Your task to perform on an android device: Search for vegetarian restaurants on Maps Image 0: 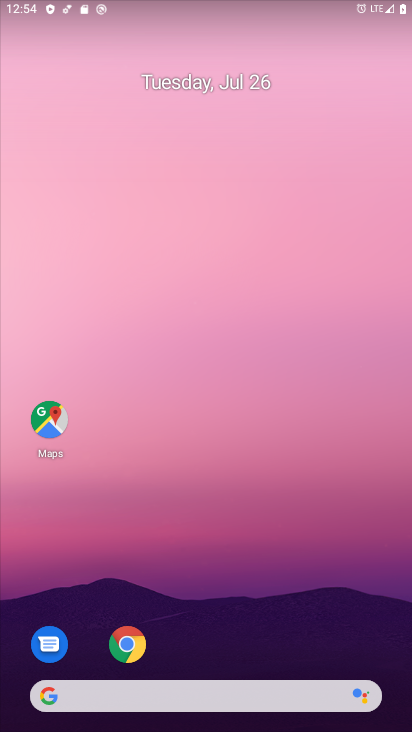
Step 0: click (56, 424)
Your task to perform on an android device: Search for vegetarian restaurants on Maps Image 1: 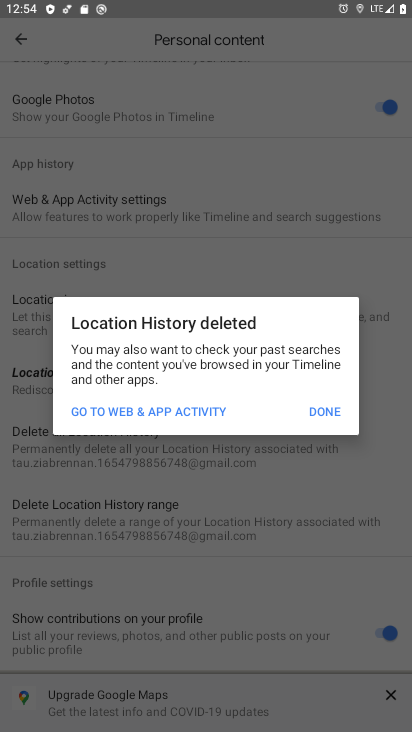
Step 1: click (321, 410)
Your task to perform on an android device: Search for vegetarian restaurants on Maps Image 2: 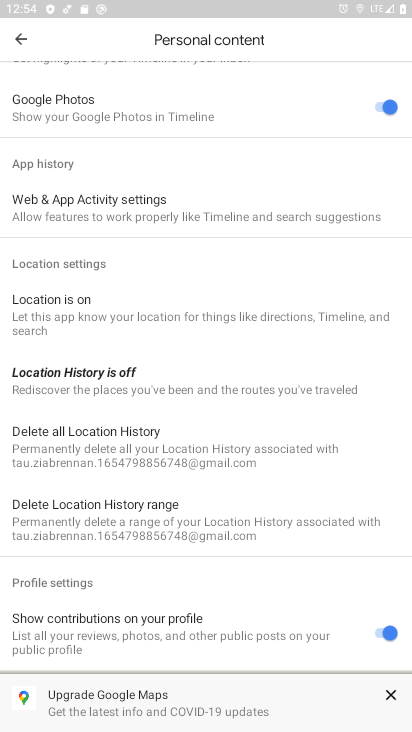
Step 2: click (19, 37)
Your task to perform on an android device: Search for vegetarian restaurants on Maps Image 3: 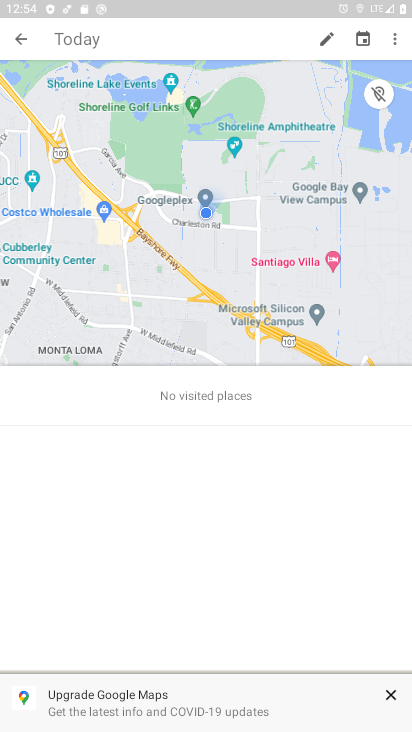
Step 3: click (21, 43)
Your task to perform on an android device: Search for vegetarian restaurants on Maps Image 4: 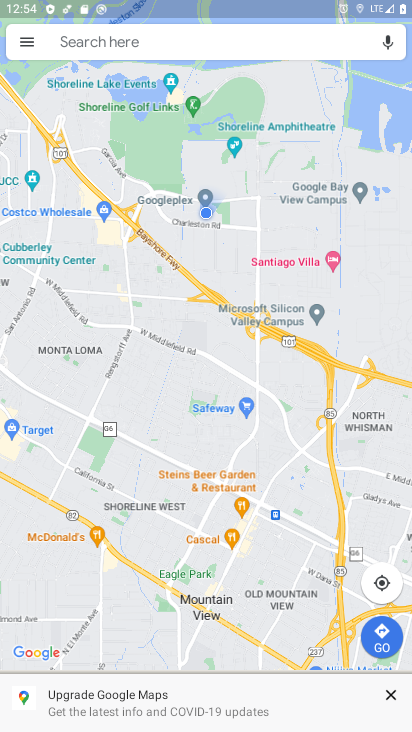
Step 4: click (79, 41)
Your task to perform on an android device: Search for vegetarian restaurants on Maps Image 5: 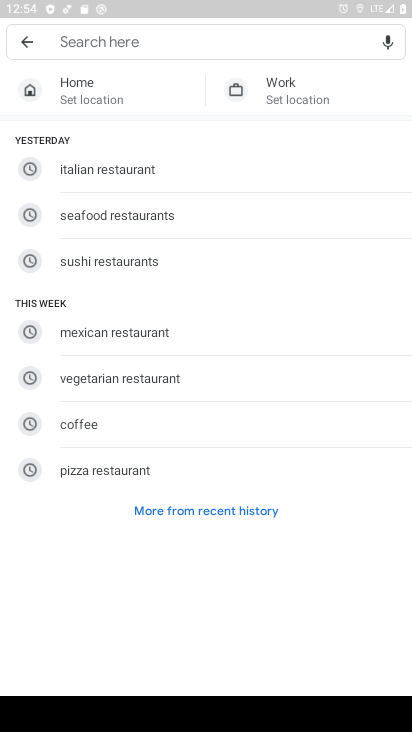
Step 5: click (122, 376)
Your task to perform on an android device: Search for vegetarian restaurants on Maps Image 6: 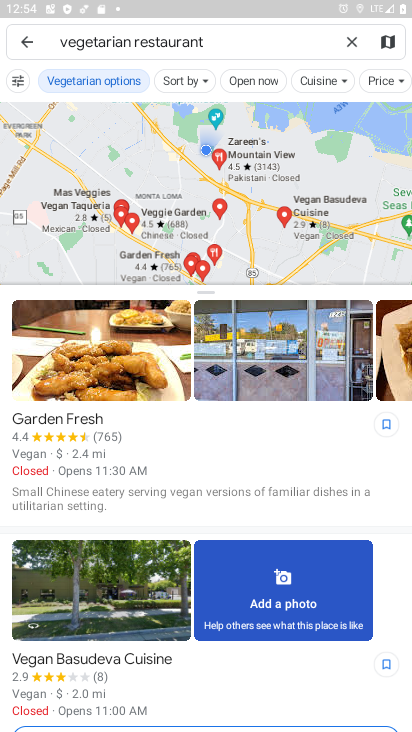
Step 6: task complete